Your task to perform on an android device: open sync settings in chrome Image 0: 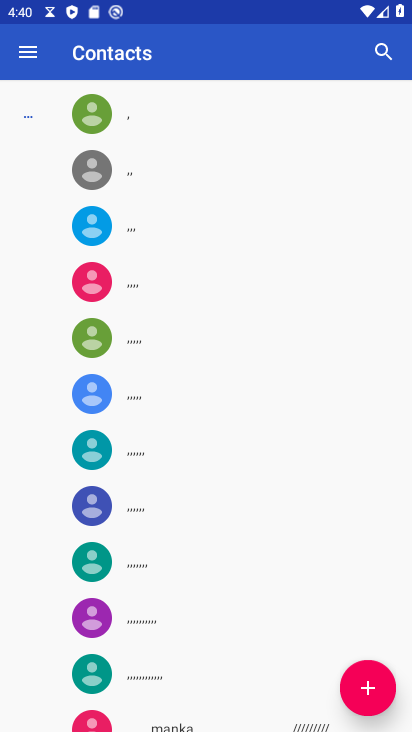
Step 0: press home button
Your task to perform on an android device: open sync settings in chrome Image 1: 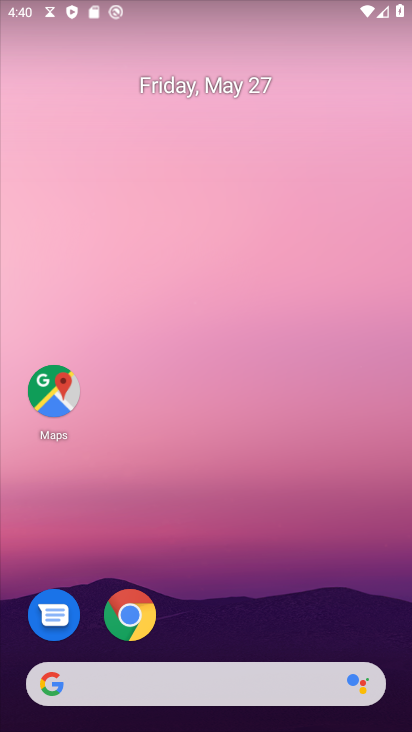
Step 1: click (138, 612)
Your task to perform on an android device: open sync settings in chrome Image 2: 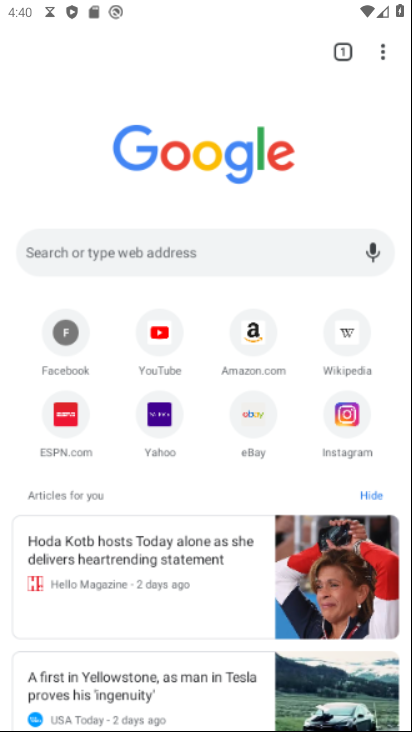
Step 2: click (384, 46)
Your task to perform on an android device: open sync settings in chrome Image 3: 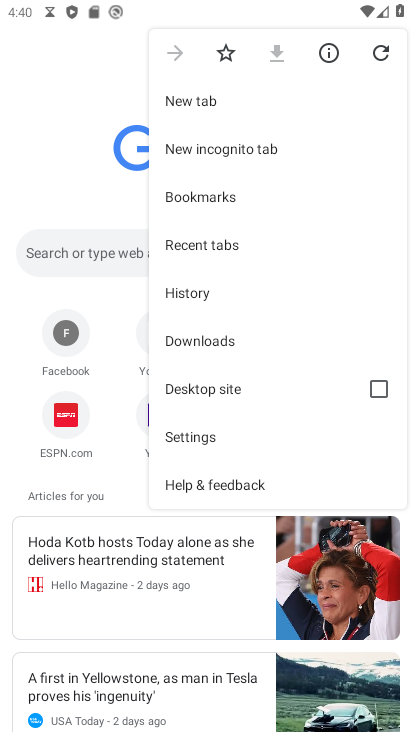
Step 3: click (230, 433)
Your task to perform on an android device: open sync settings in chrome Image 4: 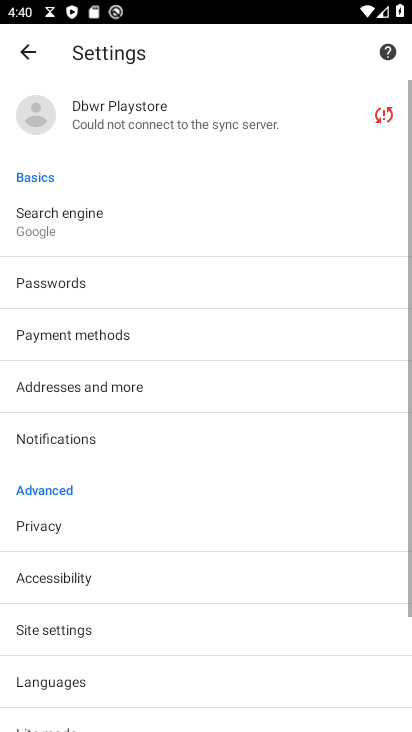
Step 4: drag from (189, 611) to (191, 156)
Your task to perform on an android device: open sync settings in chrome Image 5: 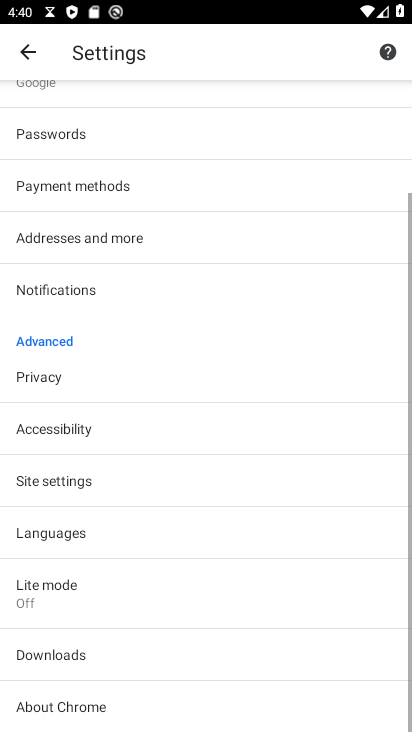
Step 5: click (132, 485)
Your task to perform on an android device: open sync settings in chrome Image 6: 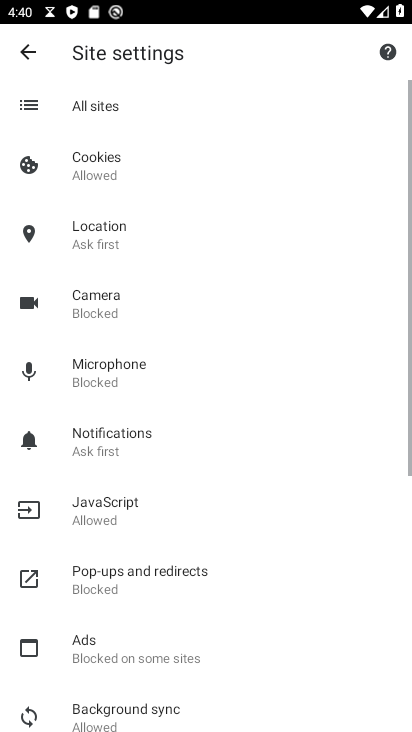
Step 6: click (242, 394)
Your task to perform on an android device: open sync settings in chrome Image 7: 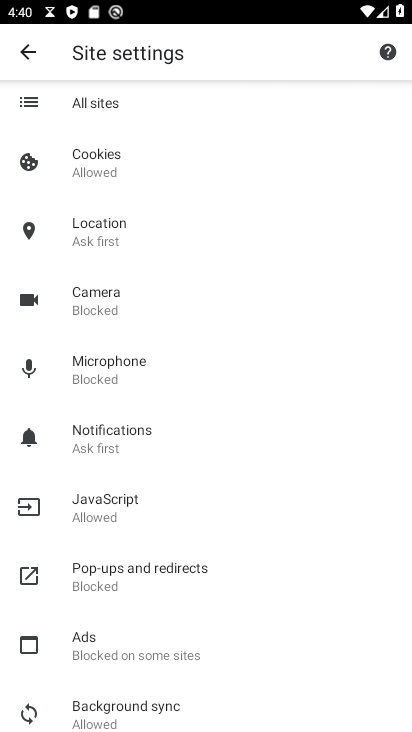
Step 7: click (188, 701)
Your task to perform on an android device: open sync settings in chrome Image 8: 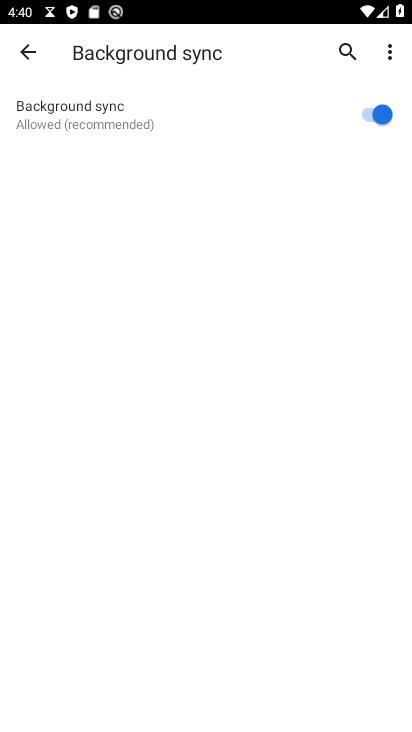
Step 8: task complete